Your task to perform on an android device: turn off notifications settings in the gmail app Image 0: 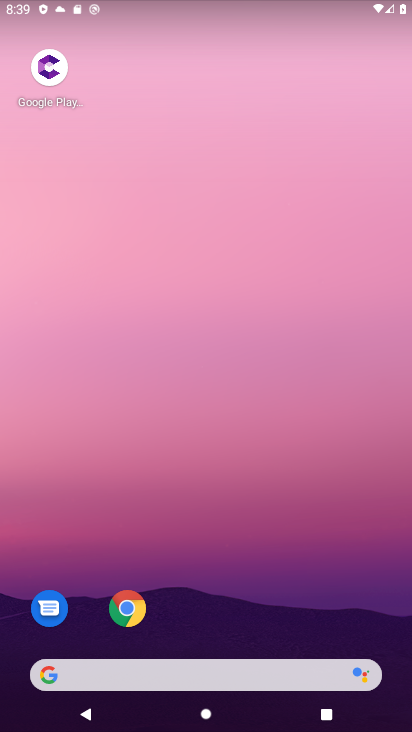
Step 0: drag from (231, 592) to (286, 75)
Your task to perform on an android device: turn off notifications settings in the gmail app Image 1: 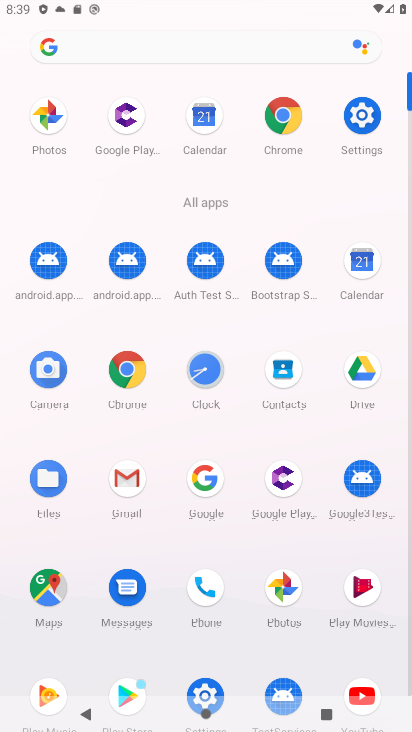
Step 1: click (358, 112)
Your task to perform on an android device: turn off notifications settings in the gmail app Image 2: 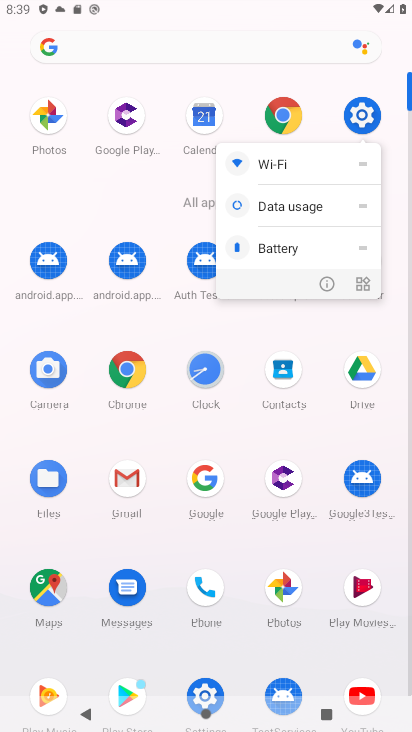
Step 2: click (358, 115)
Your task to perform on an android device: turn off notifications settings in the gmail app Image 3: 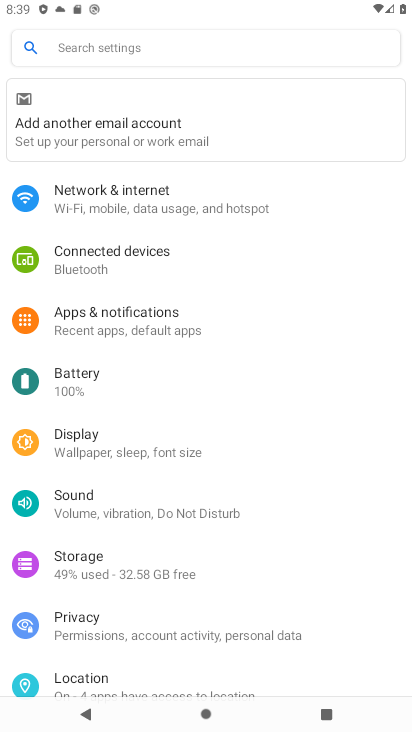
Step 3: click (182, 316)
Your task to perform on an android device: turn off notifications settings in the gmail app Image 4: 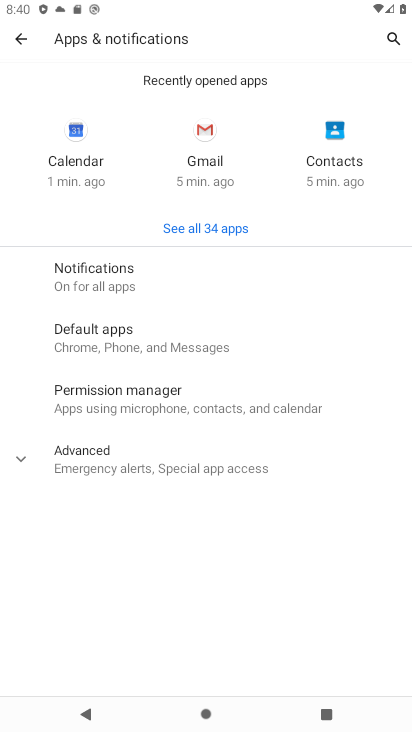
Step 4: click (210, 141)
Your task to perform on an android device: turn off notifications settings in the gmail app Image 5: 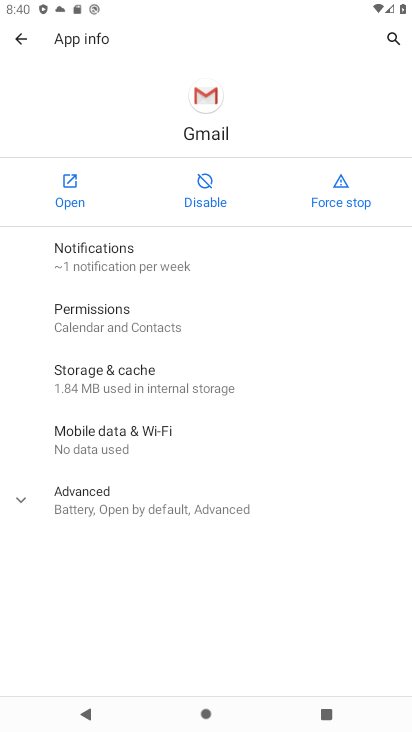
Step 5: click (187, 247)
Your task to perform on an android device: turn off notifications settings in the gmail app Image 6: 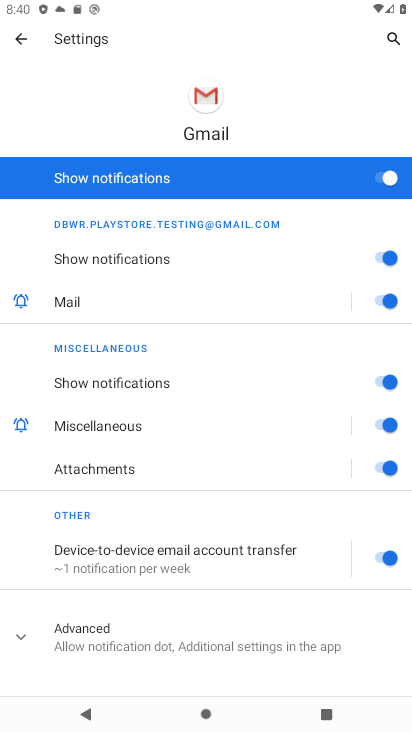
Step 6: click (380, 183)
Your task to perform on an android device: turn off notifications settings in the gmail app Image 7: 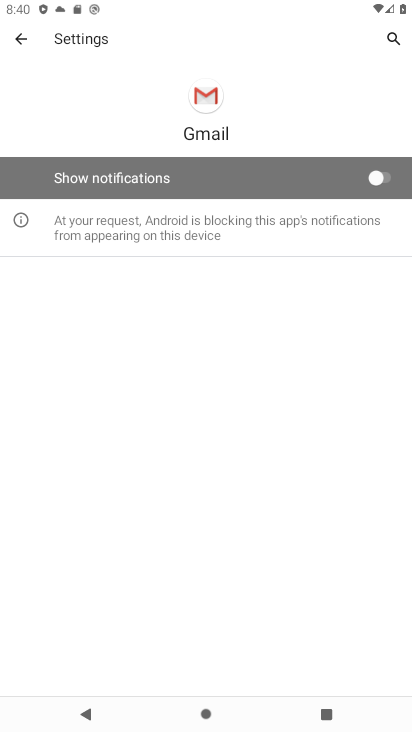
Step 7: task complete